Your task to perform on an android device: Open Amazon Image 0: 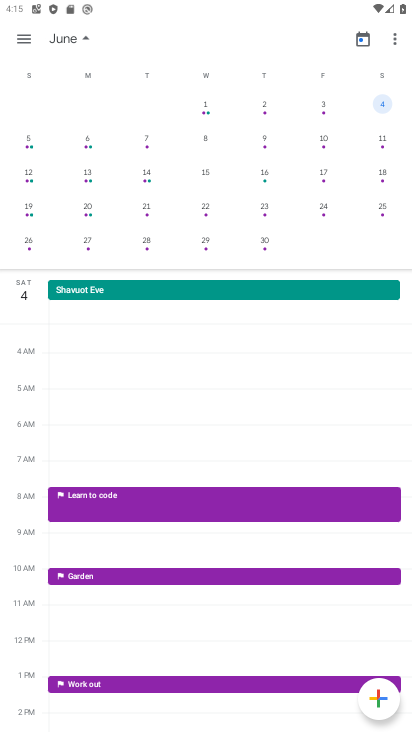
Step 0: press home button
Your task to perform on an android device: Open Amazon Image 1: 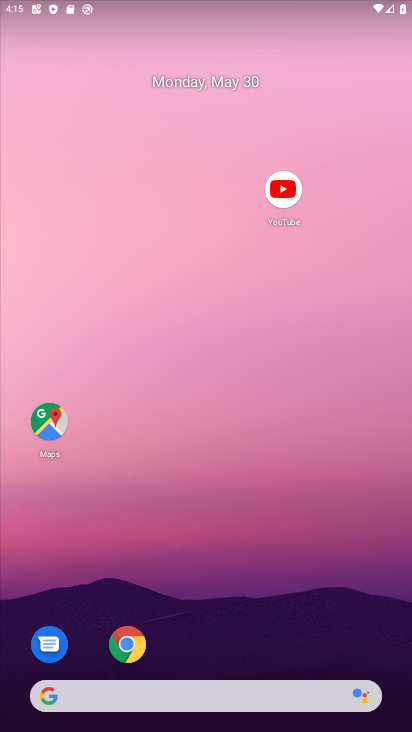
Step 1: click (124, 649)
Your task to perform on an android device: Open Amazon Image 2: 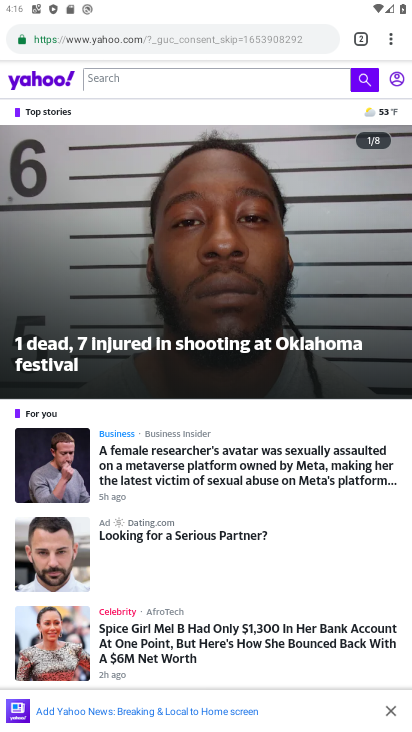
Step 2: click (365, 37)
Your task to perform on an android device: Open Amazon Image 3: 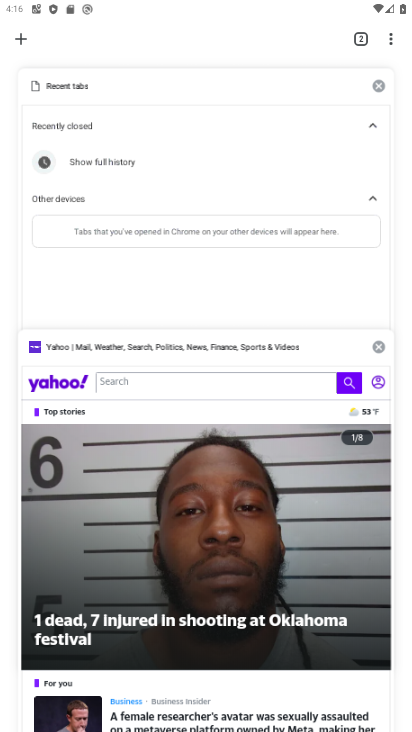
Step 3: click (28, 40)
Your task to perform on an android device: Open Amazon Image 4: 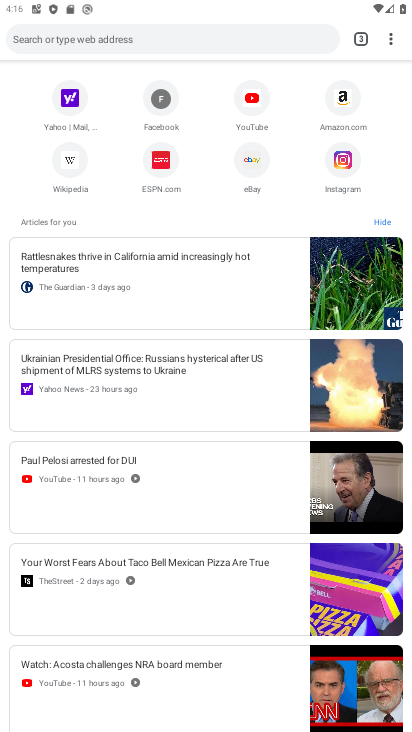
Step 4: click (362, 96)
Your task to perform on an android device: Open Amazon Image 5: 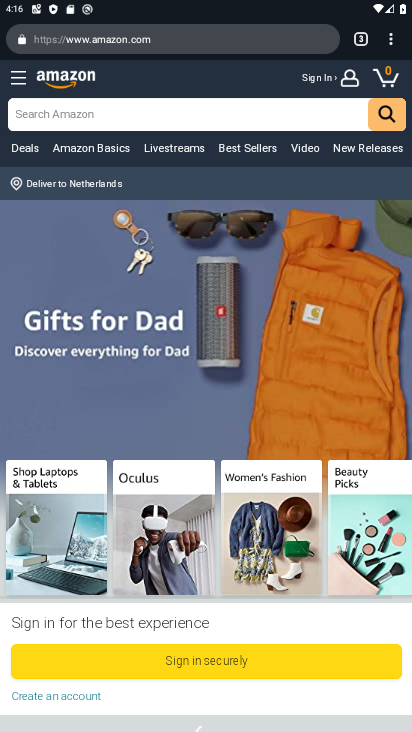
Step 5: task complete